Your task to perform on an android device: toggle location history Image 0: 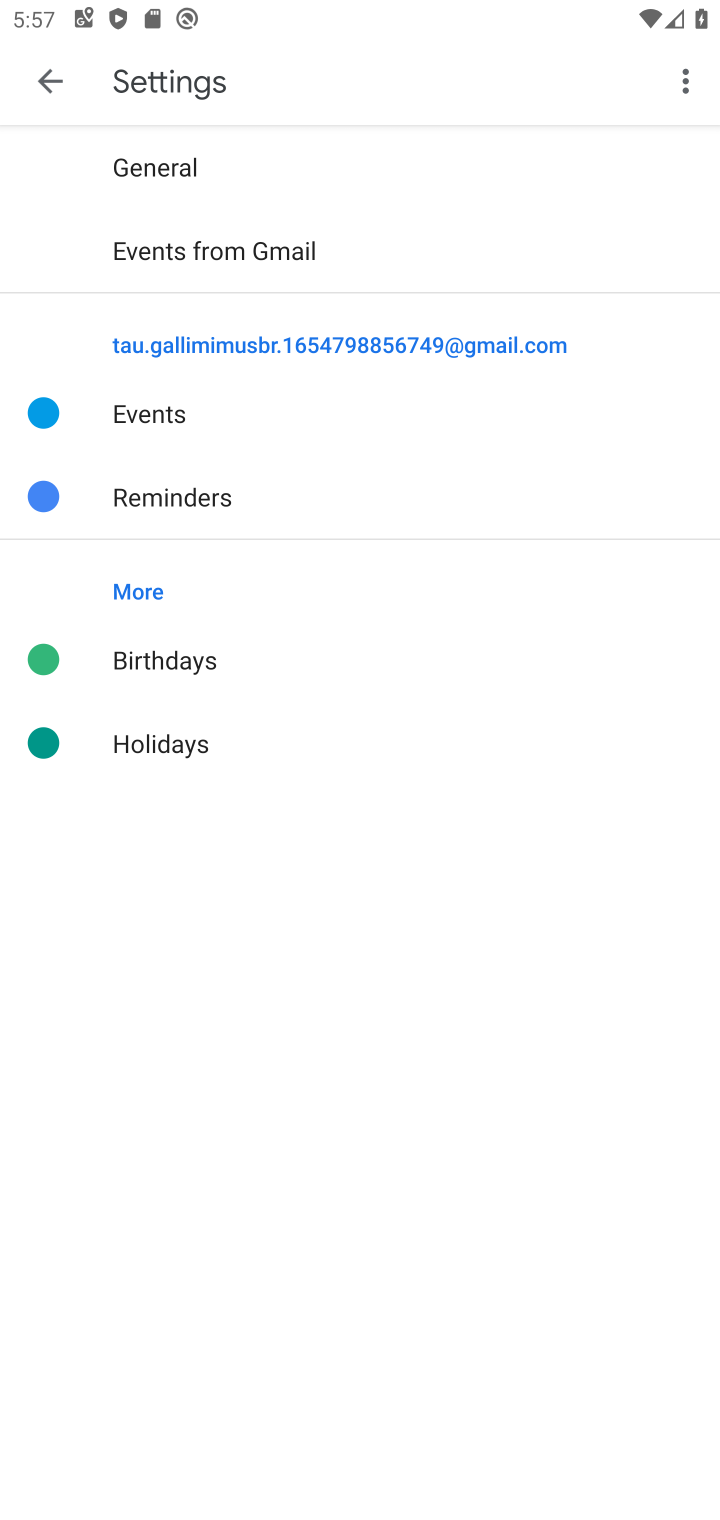
Step 0: press back button
Your task to perform on an android device: toggle location history Image 1: 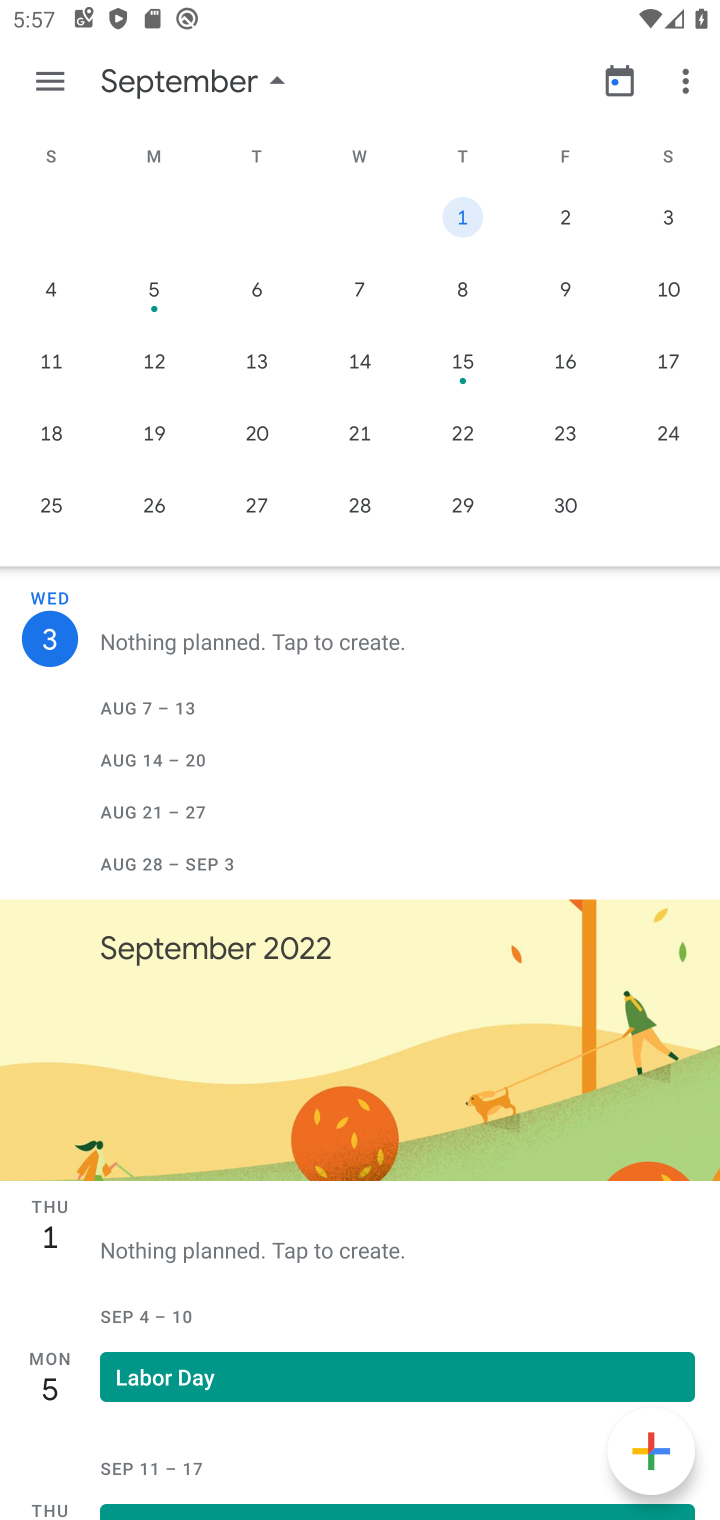
Step 1: press back button
Your task to perform on an android device: toggle location history Image 2: 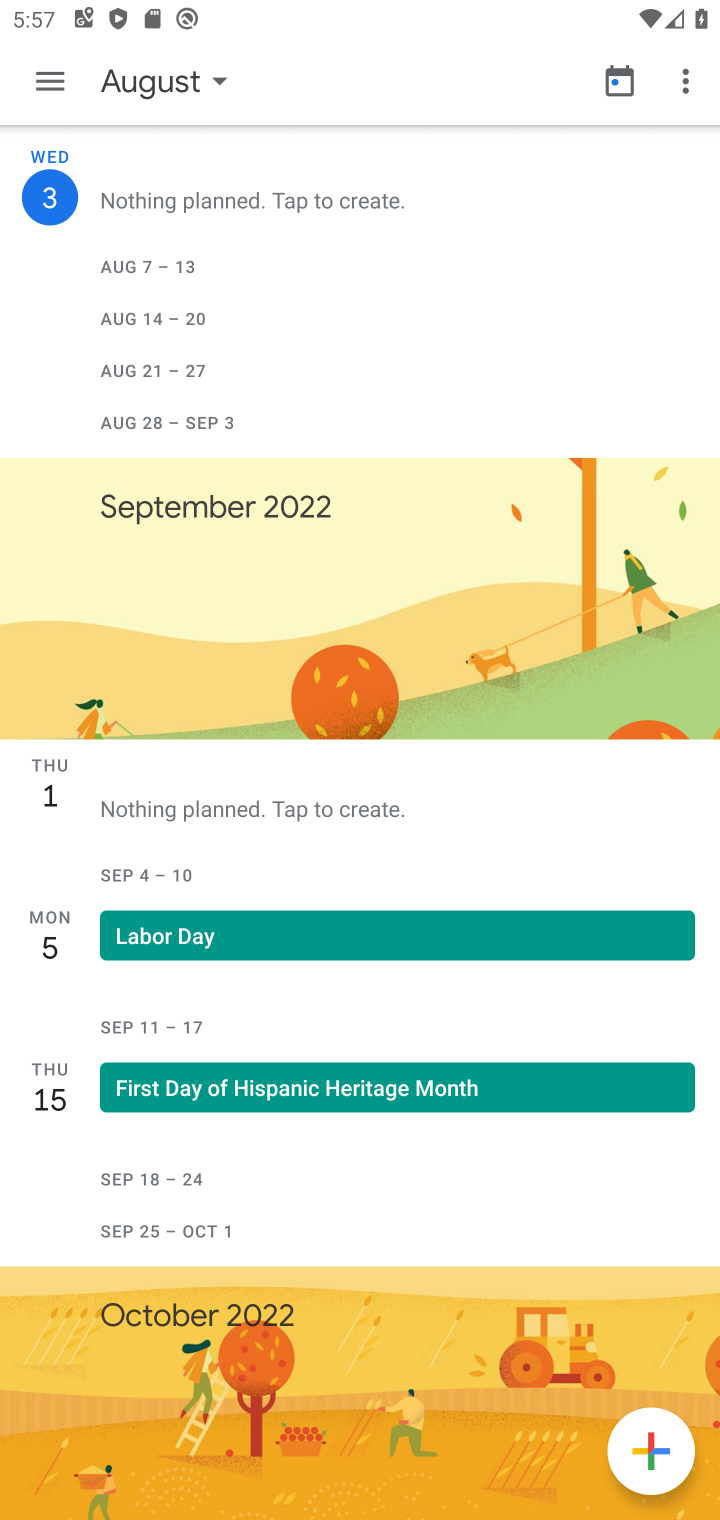
Step 2: press home button
Your task to perform on an android device: toggle location history Image 3: 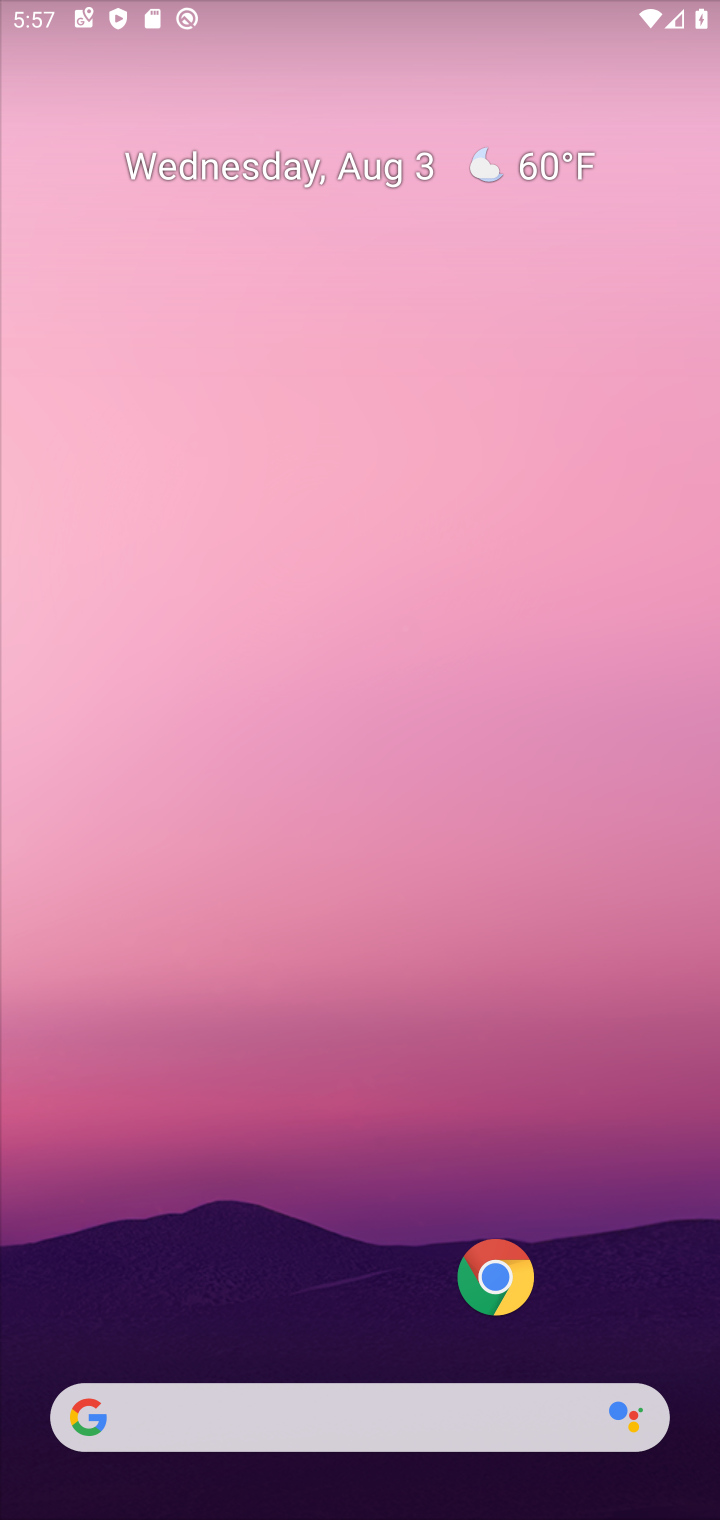
Step 3: drag from (140, 1264) to (485, 30)
Your task to perform on an android device: toggle location history Image 4: 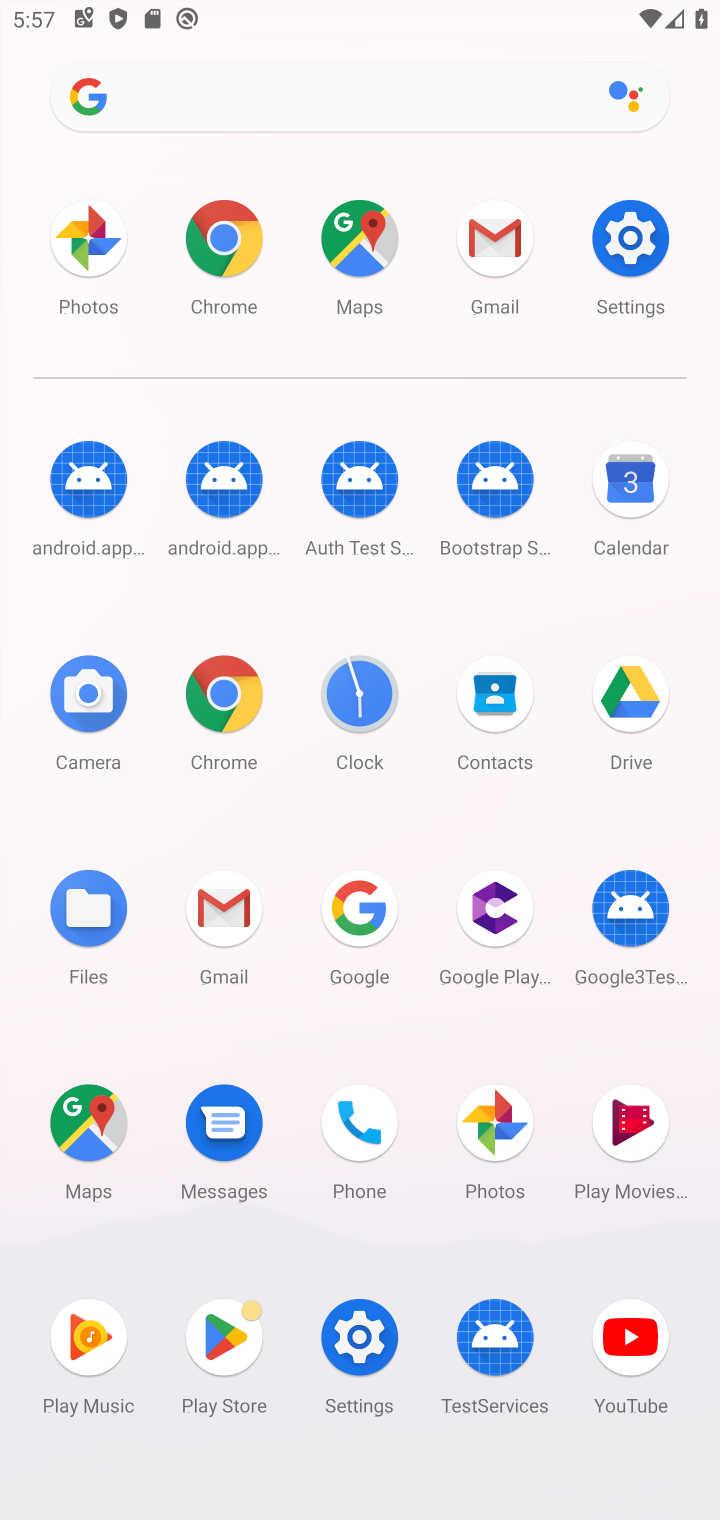
Step 4: click (629, 238)
Your task to perform on an android device: toggle location history Image 5: 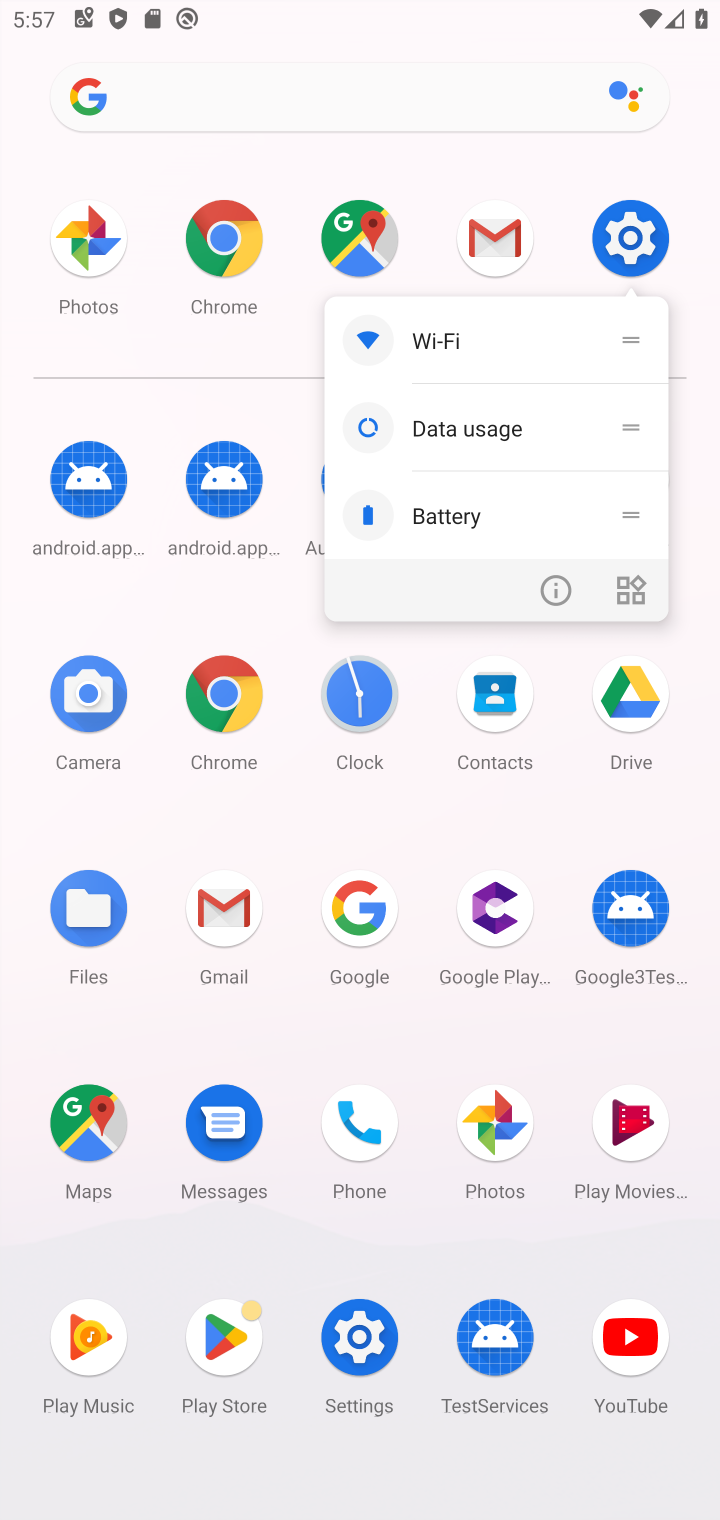
Step 5: click (654, 231)
Your task to perform on an android device: toggle location history Image 6: 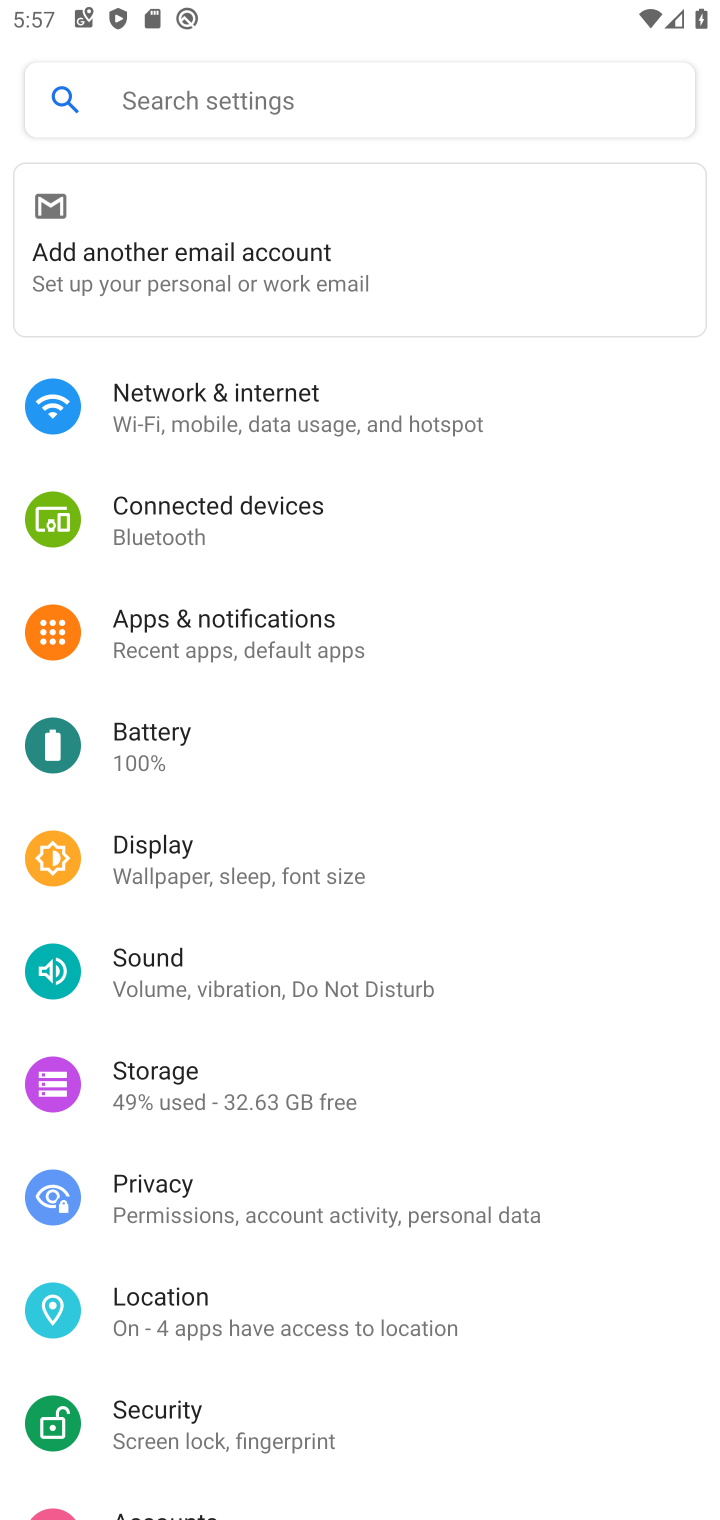
Step 6: click (217, 1300)
Your task to perform on an android device: toggle location history Image 7: 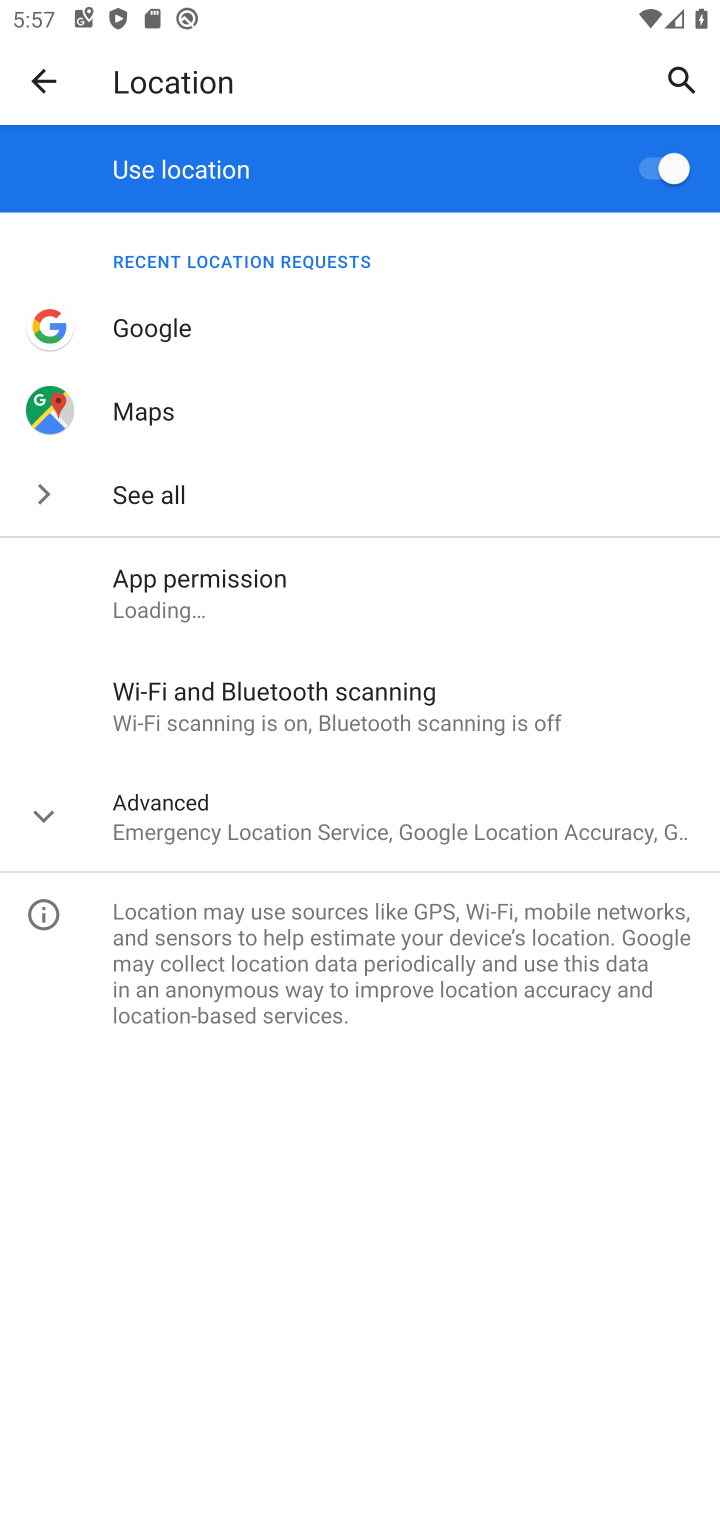
Step 7: click (298, 823)
Your task to perform on an android device: toggle location history Image 8: 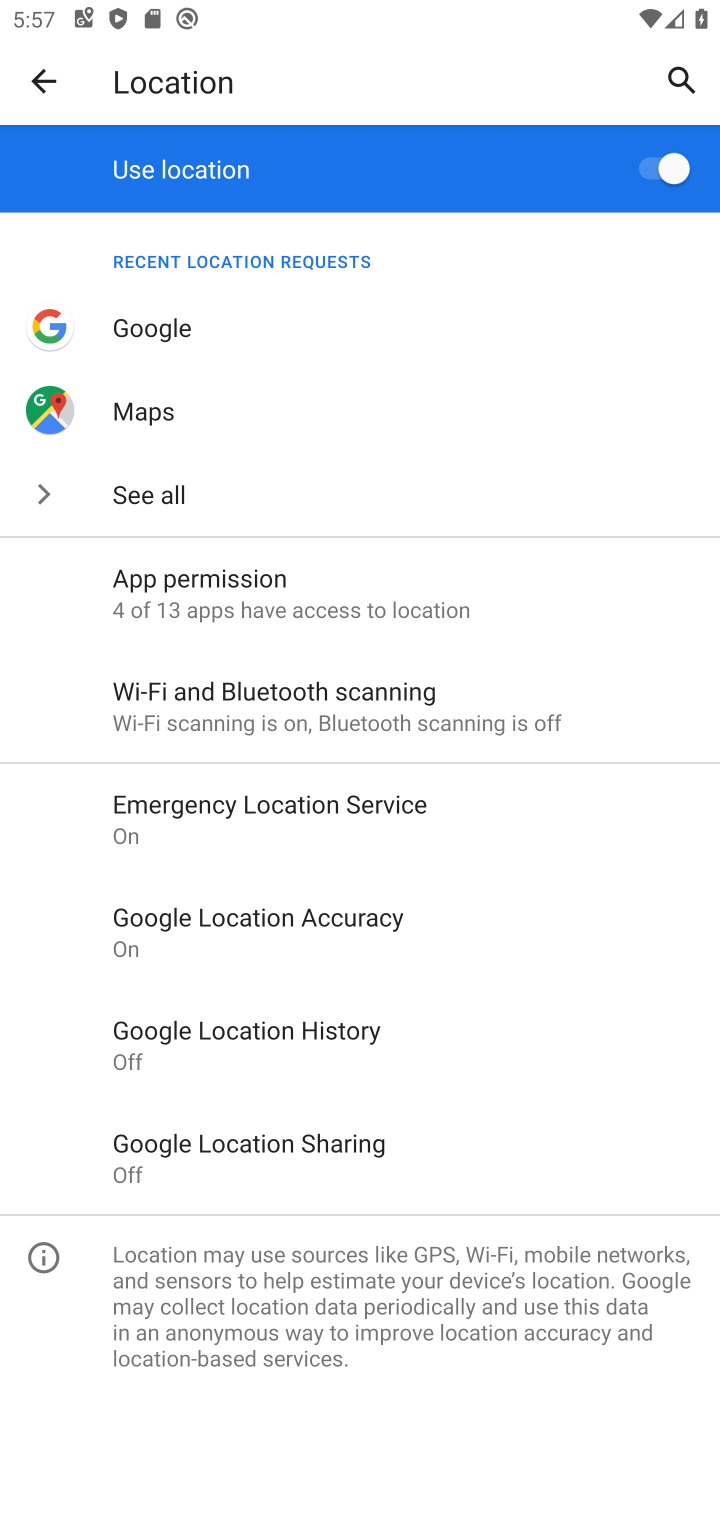
Step 8: click (293, 1042)
Your task to perform on an android device: toggle location history Image 9: 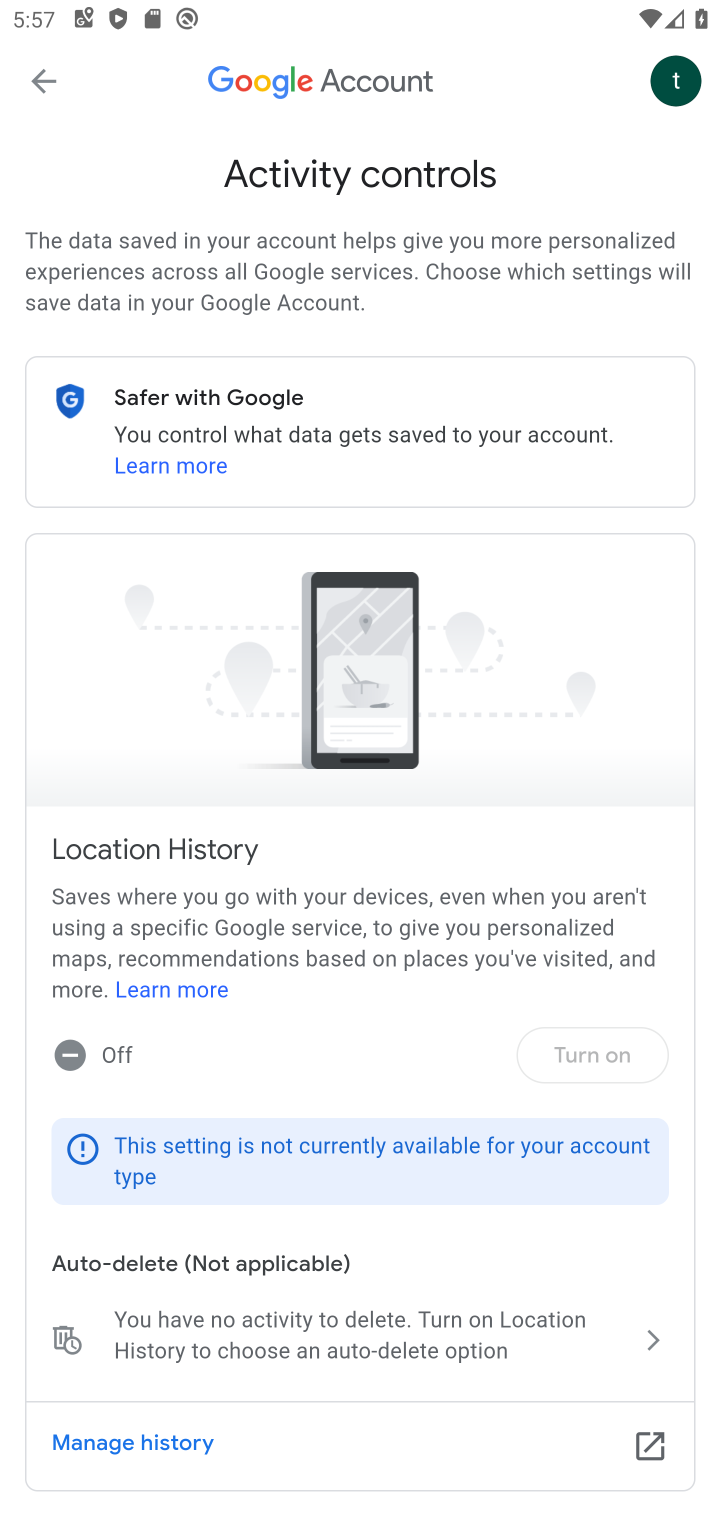
Step 9: click (619, 1035)
Your task to perform on an android device: toggle location history Image 10: 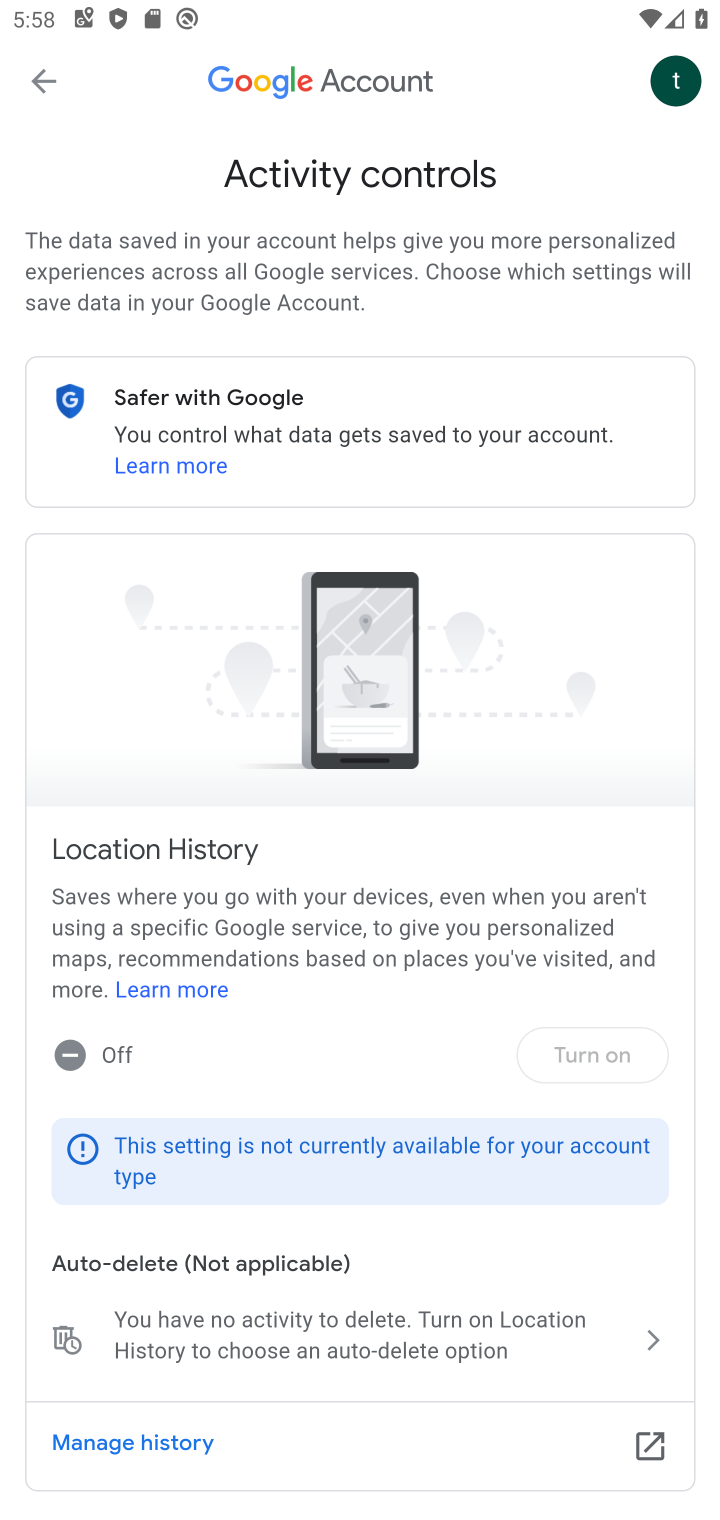
Step 10: task complete